Your task to perform on an android device: check data usage Image 0: 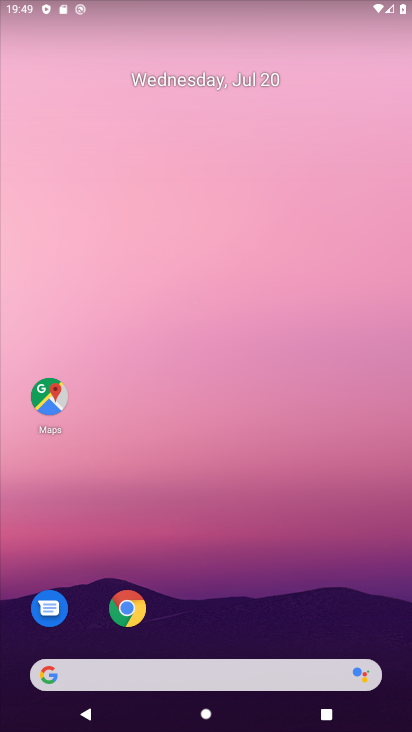
Step 0: drag from (359, 590) to (244, 19)
Your task to perform on an android device: check data usage Image 1: 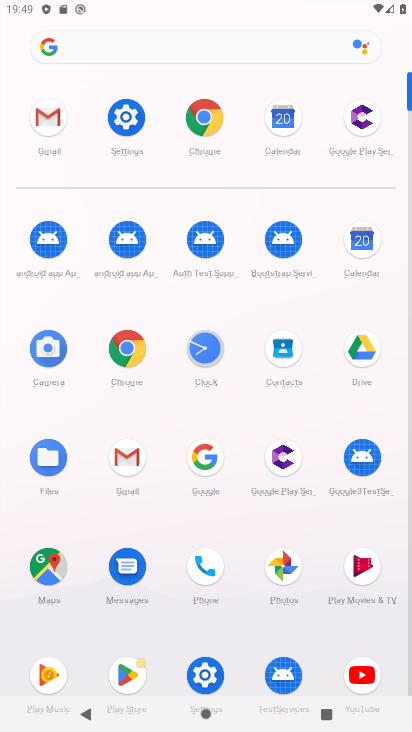
Step 1: click (124, 125)
Your task to perform on an android device: check data usage Image 2: 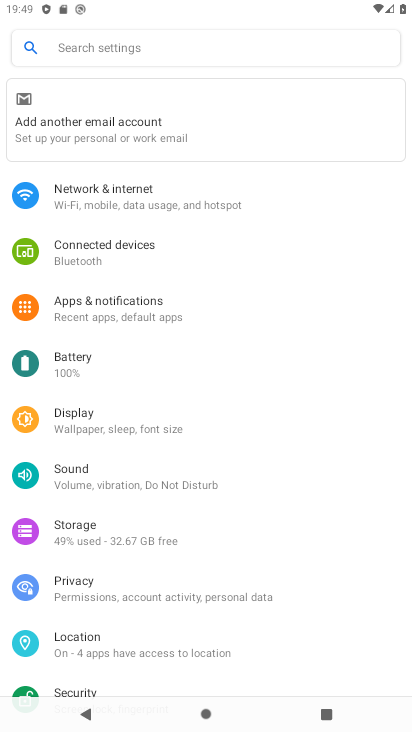
Step 2: click (158, 190)
Your task to perform on an android device: check data usage Image 3: 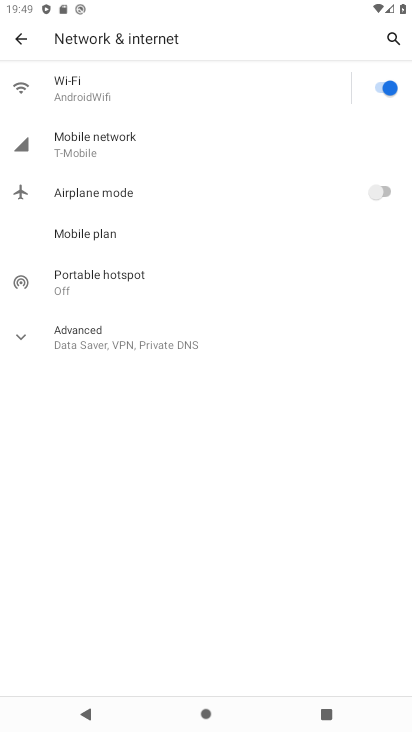
Step 3: click (144, 147)
Your task to perform on an android device: check data usage Image 4: 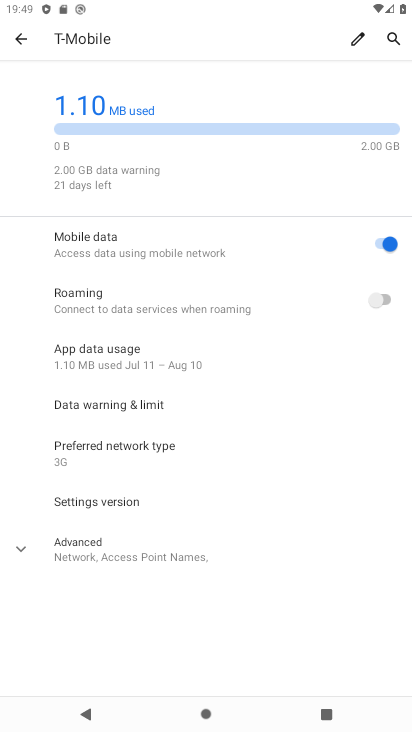
Step 4: task complete